Your task to perform on an android device: Check the news Image 0: 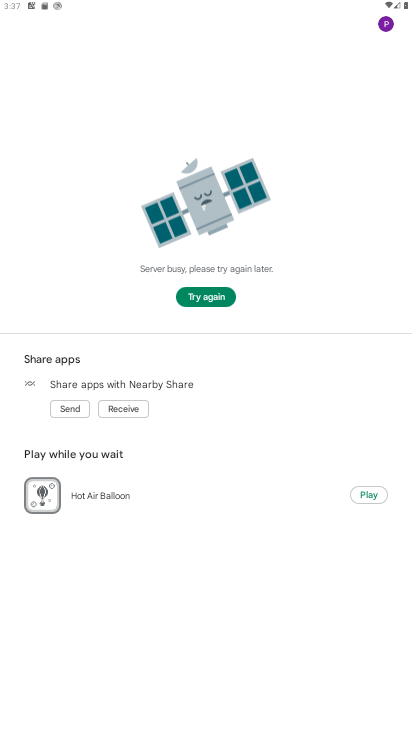
Step 0: press home button
Your task to perform on an android device: Check the news Image 1: 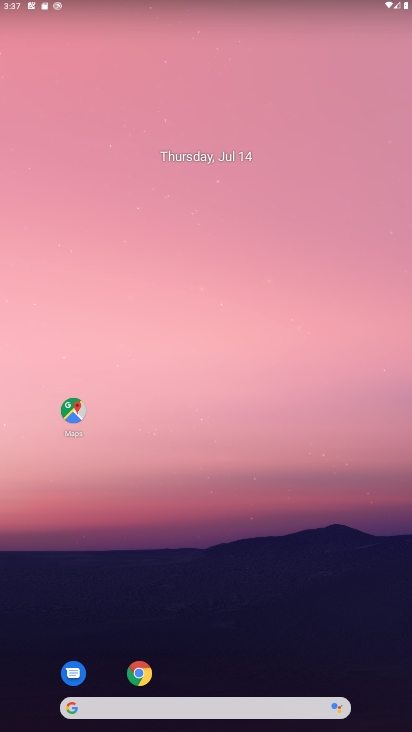
Step 1: task complete